Your task to perform on an android device: install app "VLC for Android" Image 0: 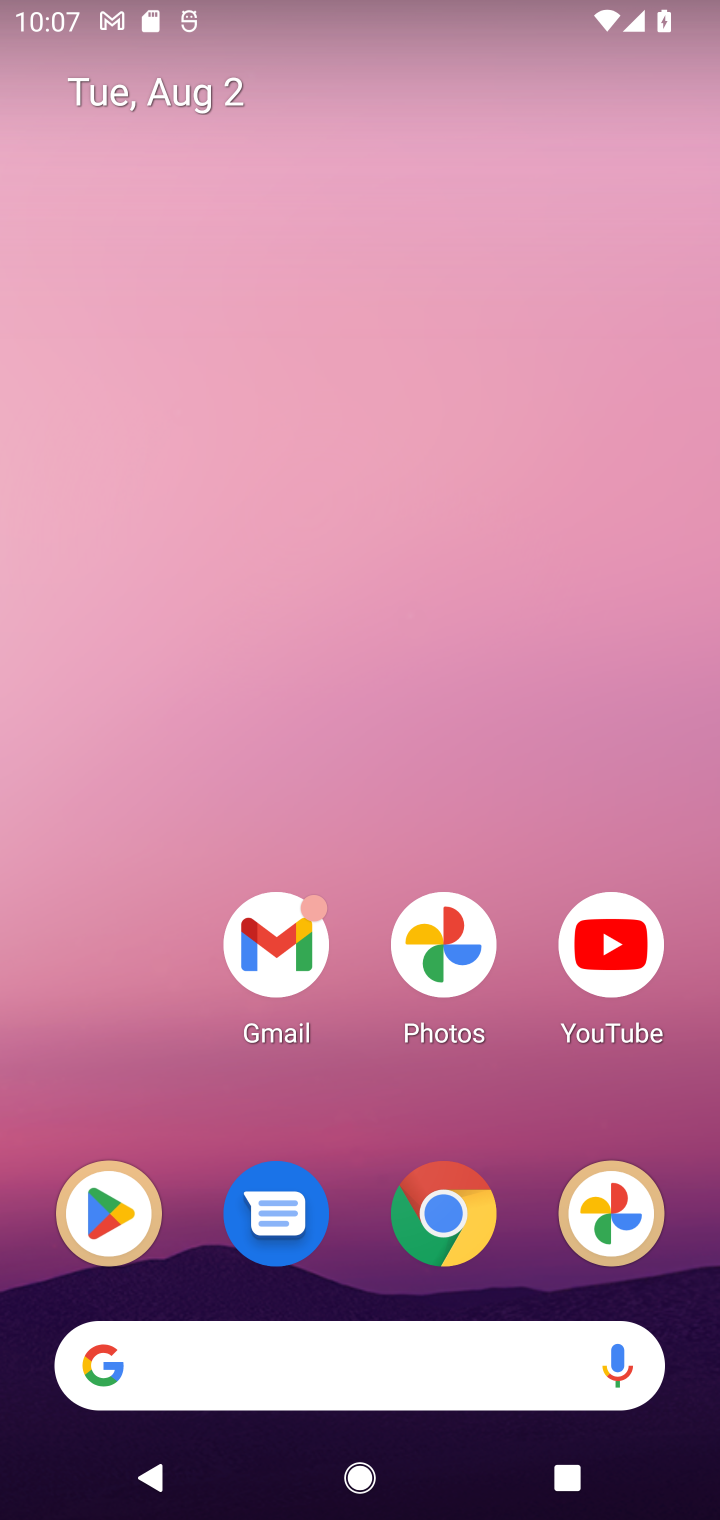
Step 0: click (93, 1218)
Your task to perform on an android device: install app "VLC for Android" Image 1: 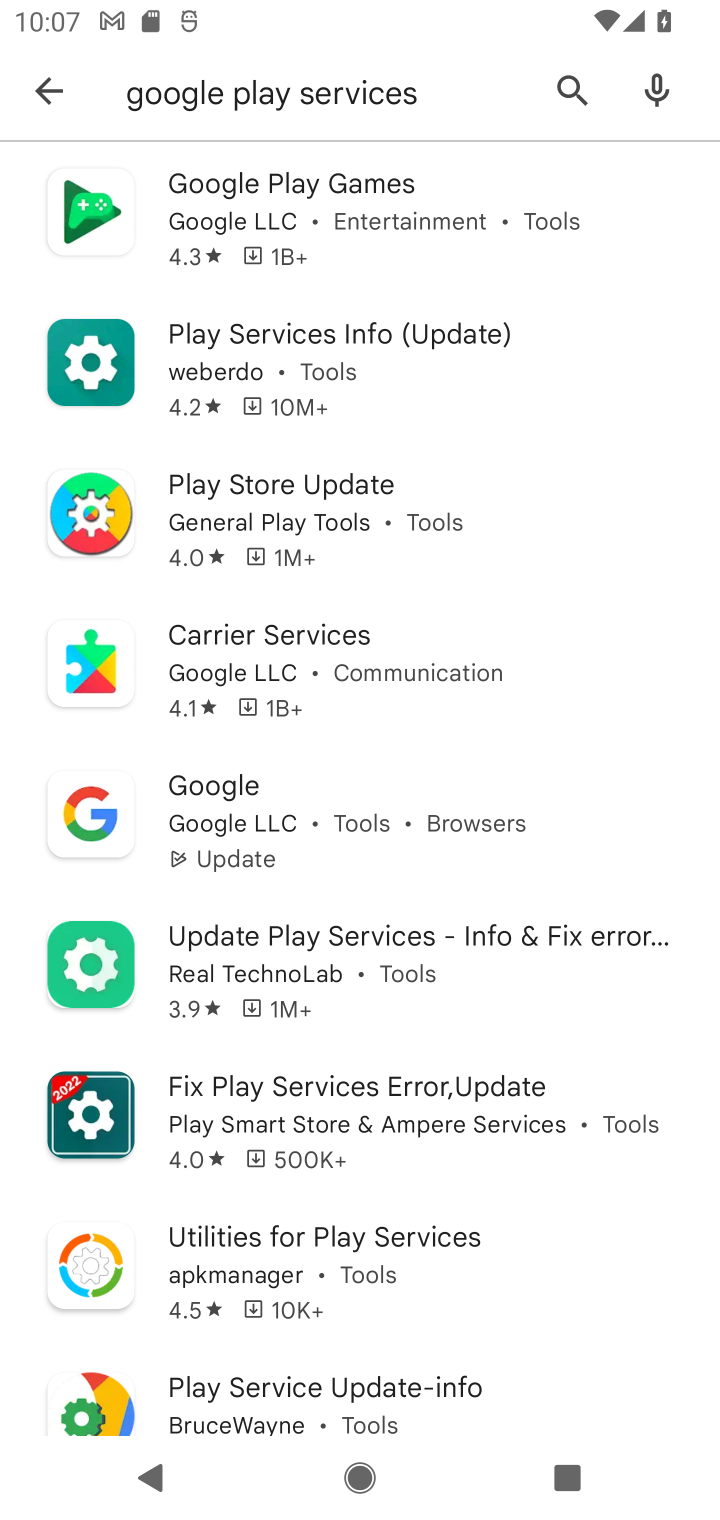
Step 1: click (52, 77)
Your task to perform on an android device: install app "VLC for Android" Image 2: 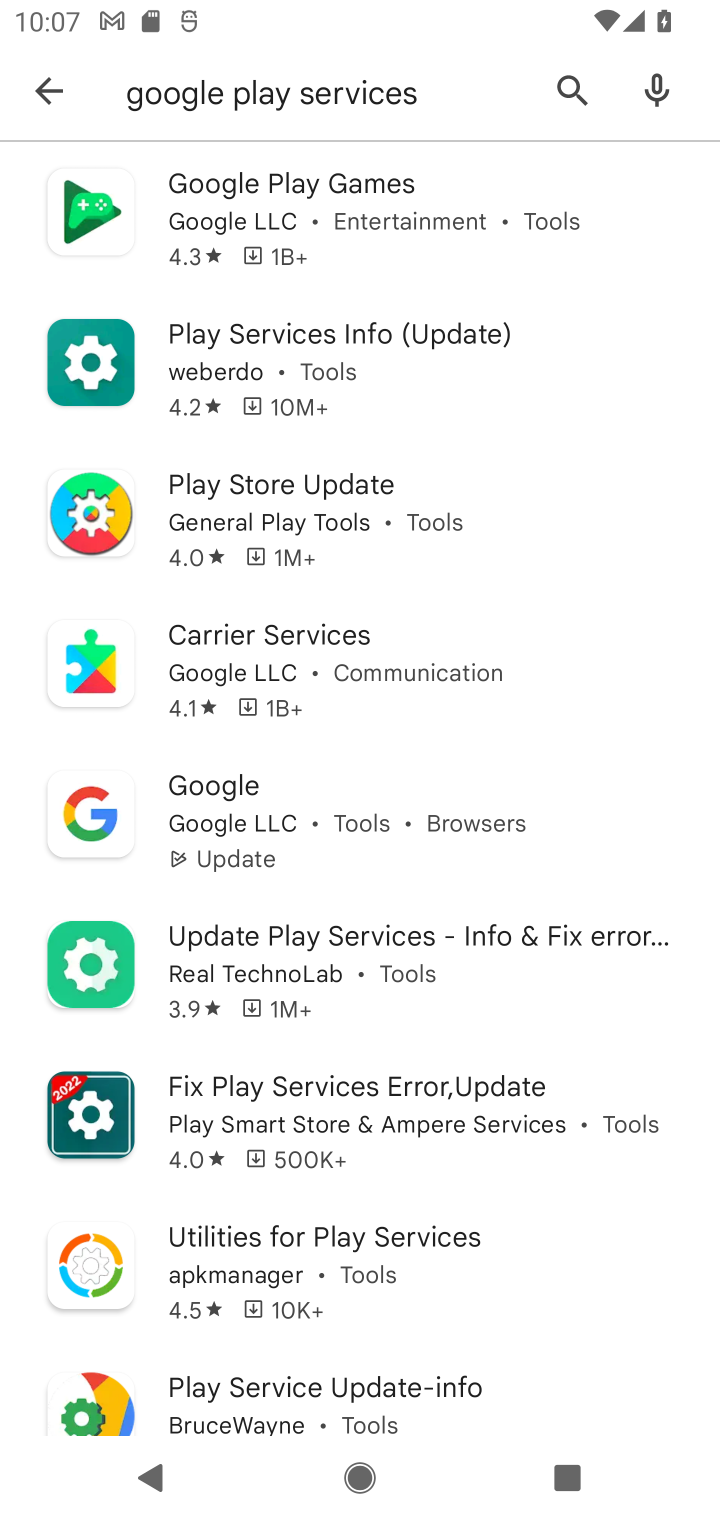
Step 2: click (54, 86)
Your task to perform on an android device: install app "VLC for Android" Image 3: 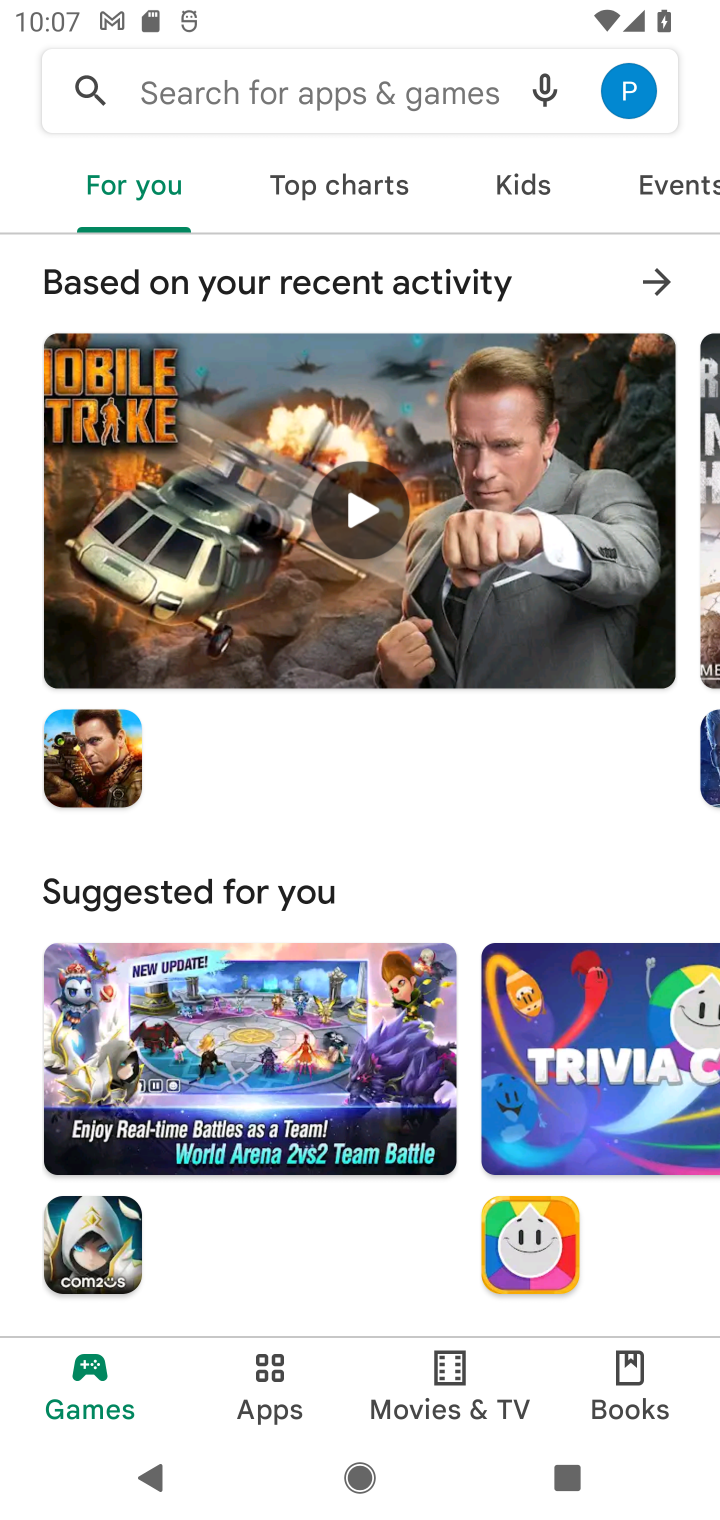
Step 3: click (215, 76)
Your task to perform on an android device: install app "VLC for Android" Image 4: 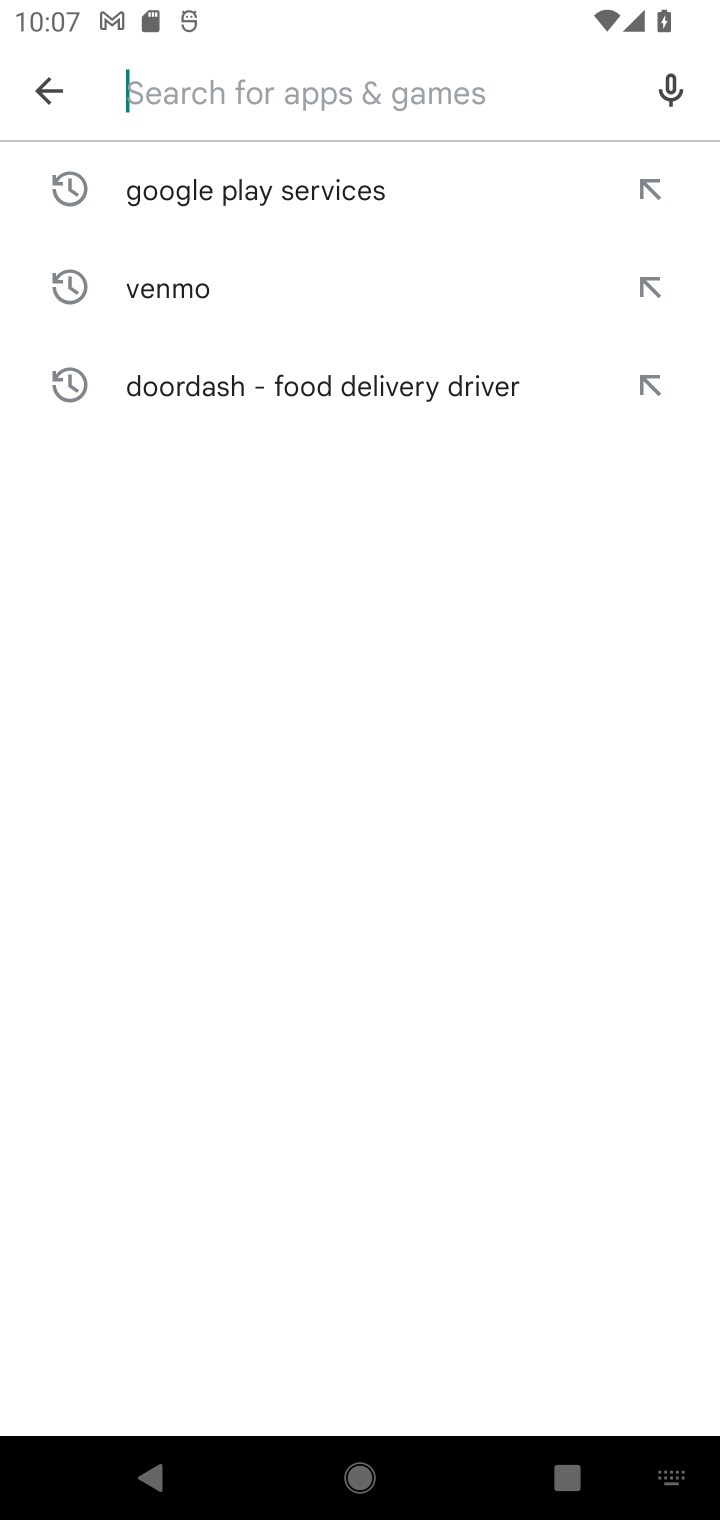
Step 4: type "VLC for Android"
Your task to perform on an android device: install app "VLC for Android" Image 5: 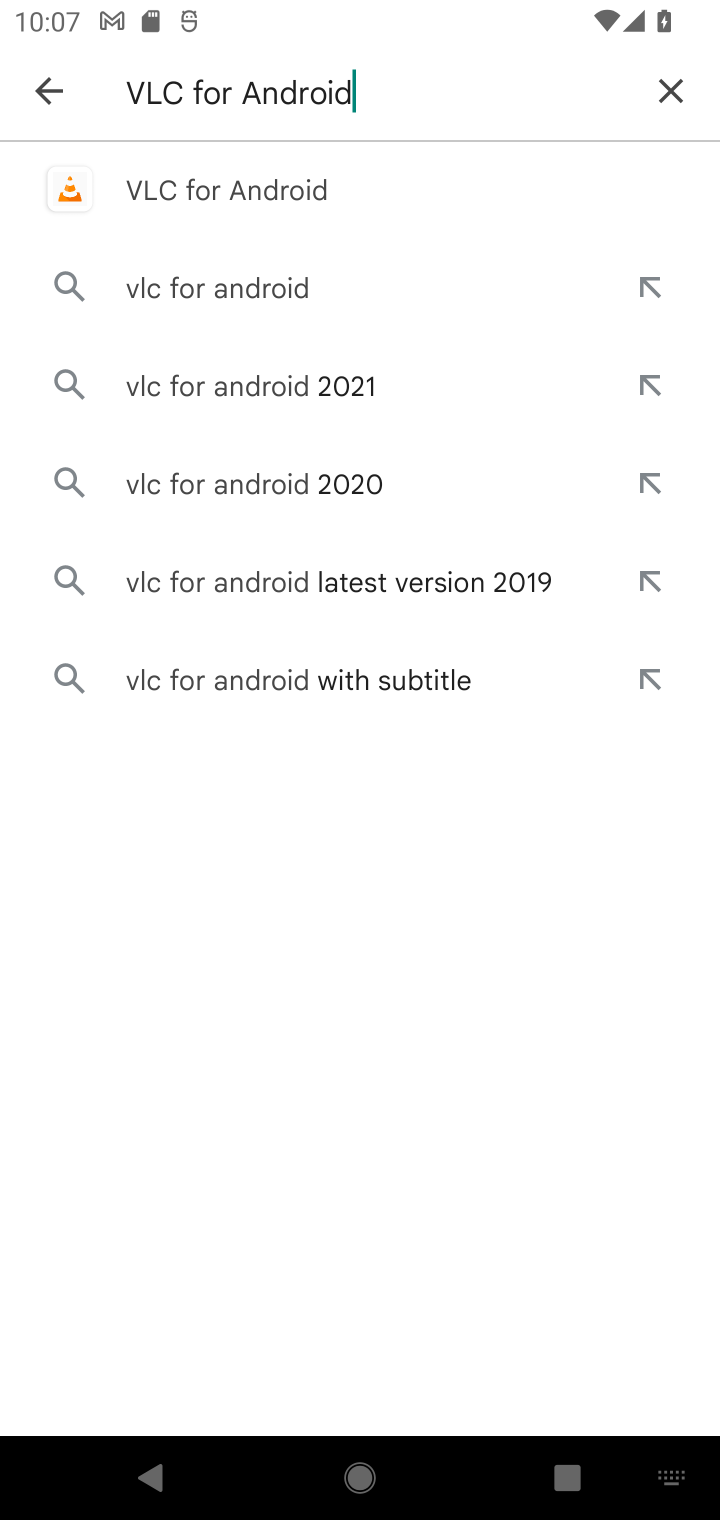
Step 5: click (216, 191)
Your task to perform on an android device: install app "VLC for Android" Image 6: 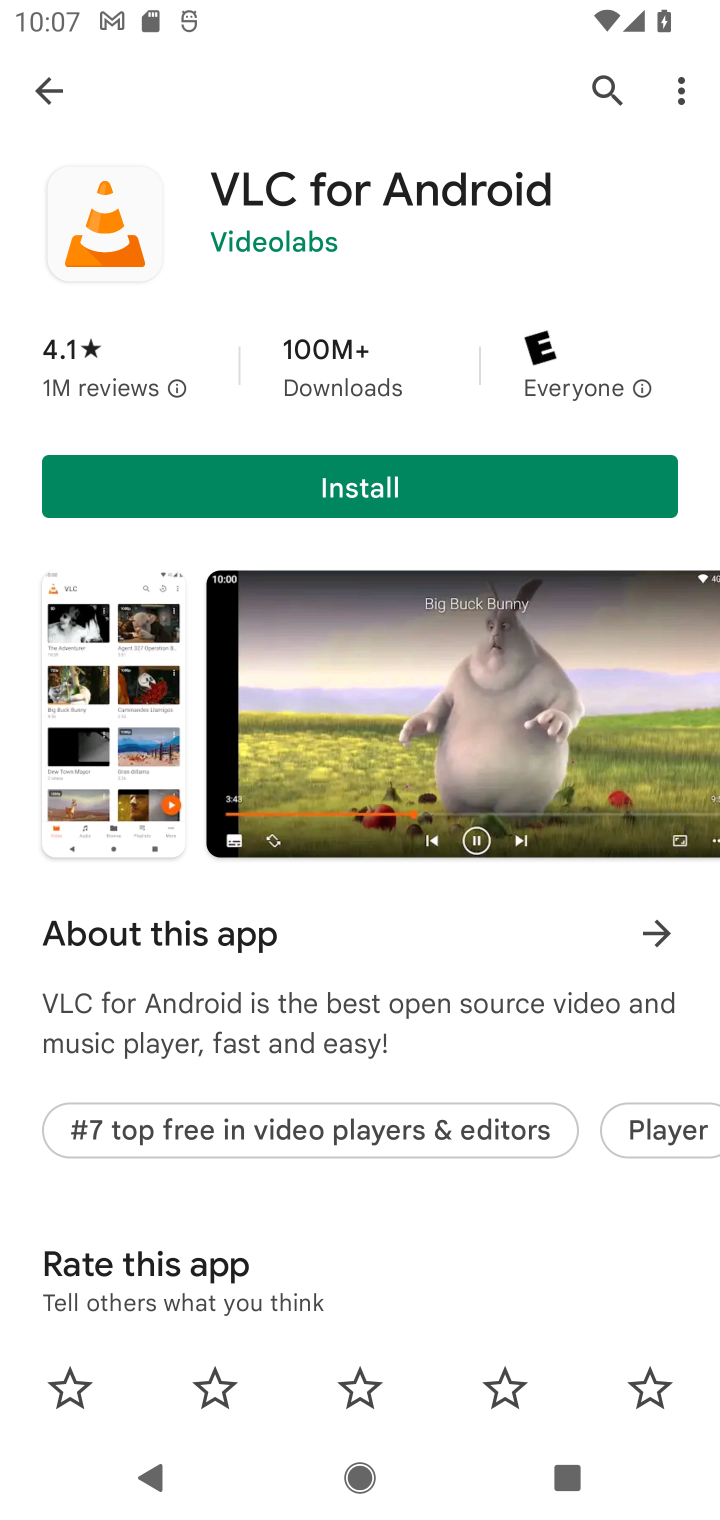
Step 6: click (364, 470)
Your task to perform on an android device: install app "VLC for Android" Image 7: 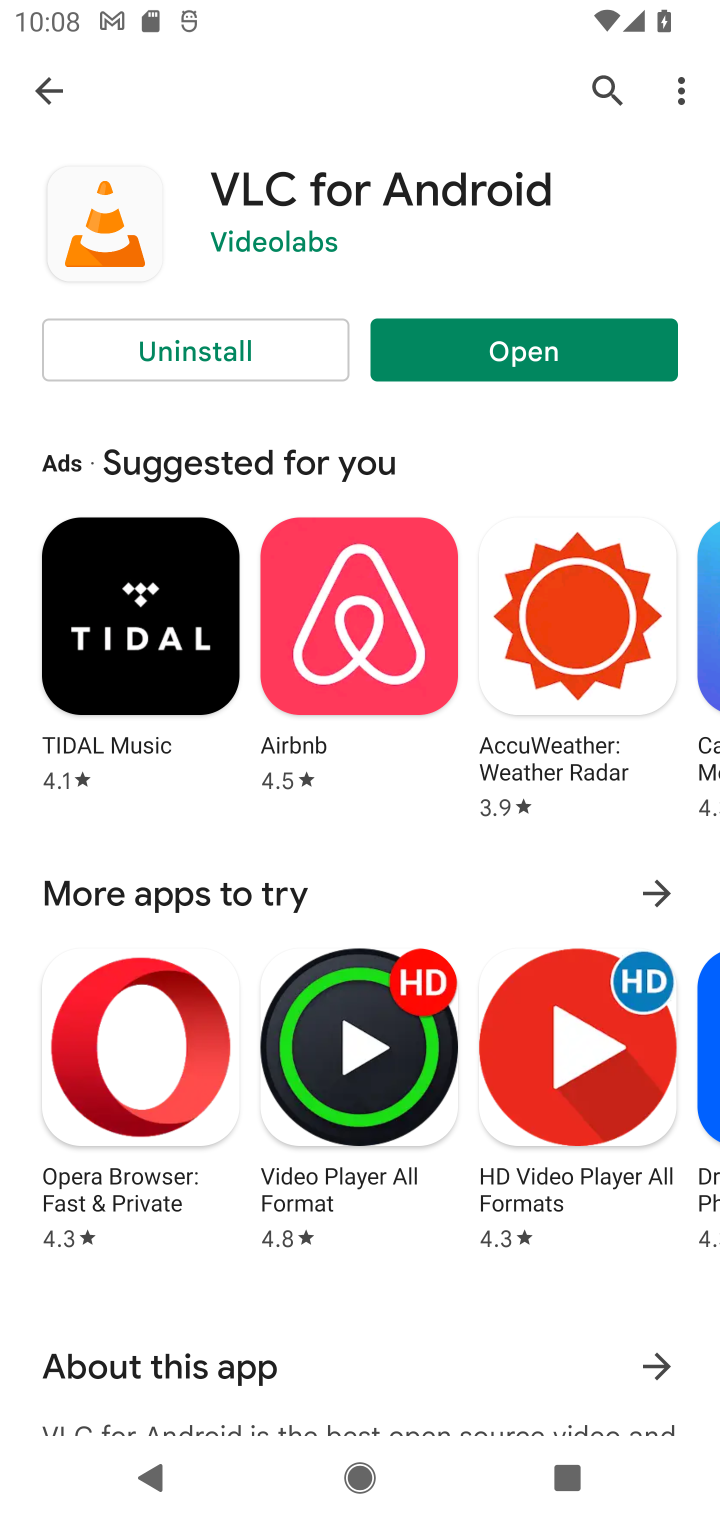
Step 7: click (563, 346)
Your task to perform on an android device: install app "VLC for Android" Image 8: 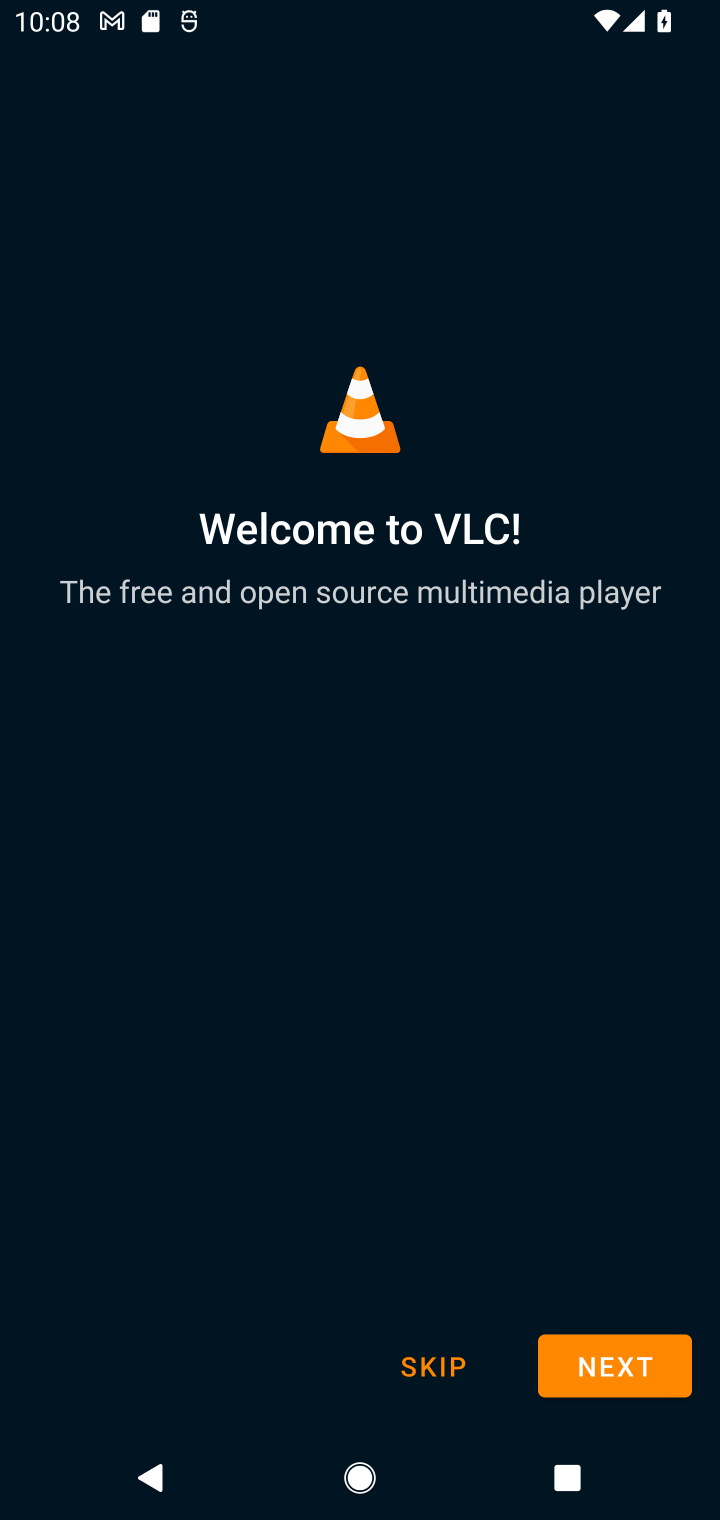
Step 8: task complete